Your task to perform on an android device: Open privacy settings Image 0: 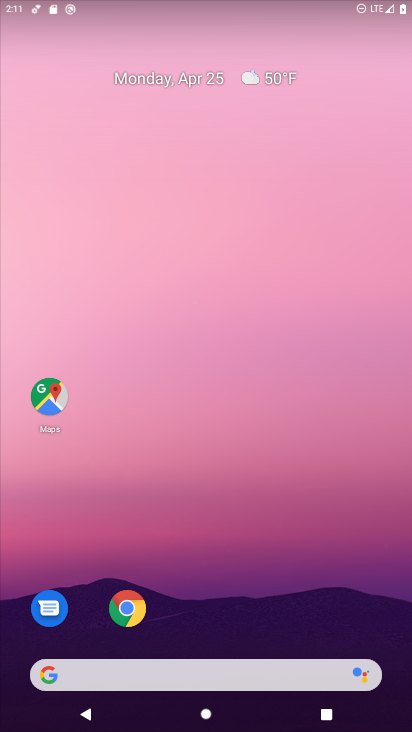
Step 0: drag from (370, 610) to (250, 82)
Your task to perform on an android device: Open privacy settings Image 1: 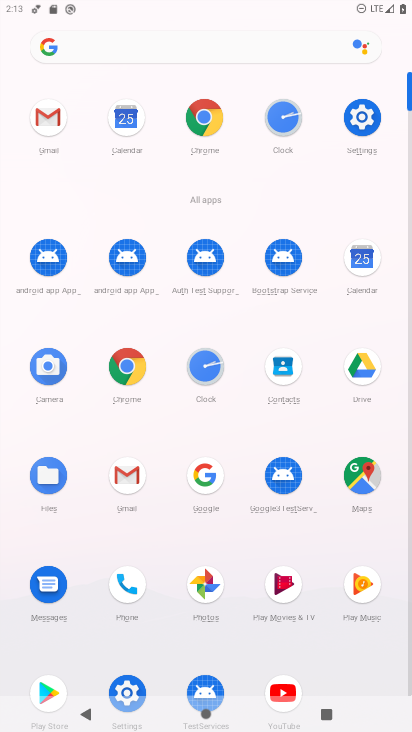
Step 1: click (368, 131)
Your task to perform on an android device: Open privacy settings Image 2: 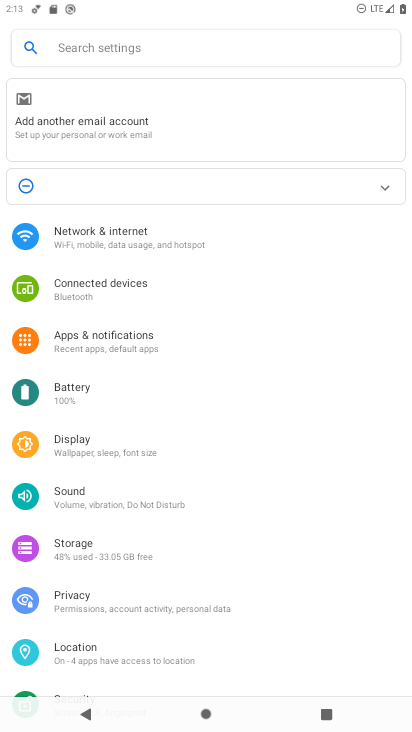
Step 2: click (121, 601)
Your task to perform on an android device: Open privacy settings Image 3: 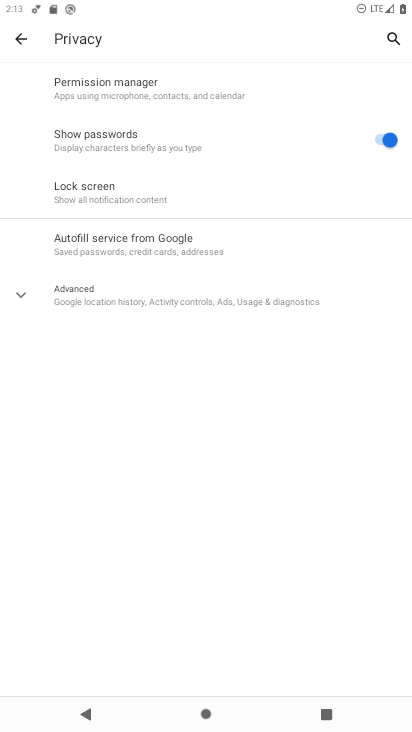
Step 3: task complete